Your task to perform on an android device: Open calendar and show me the fourth week of next month Image 0: 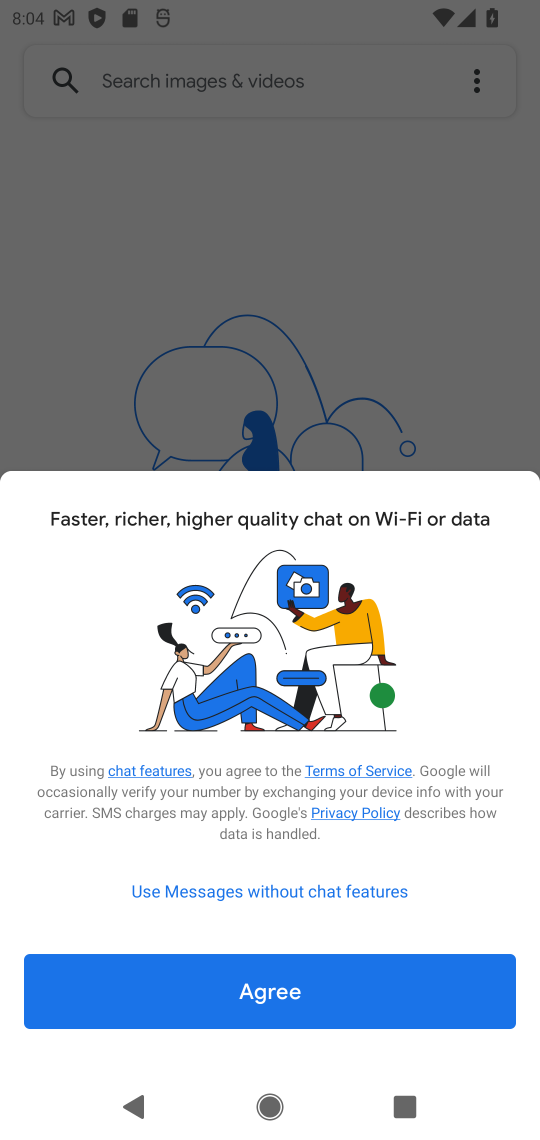
Step 0: press home button
Your task to perform on an android device: Open calendar and show me the fourth week of next month Image 1: 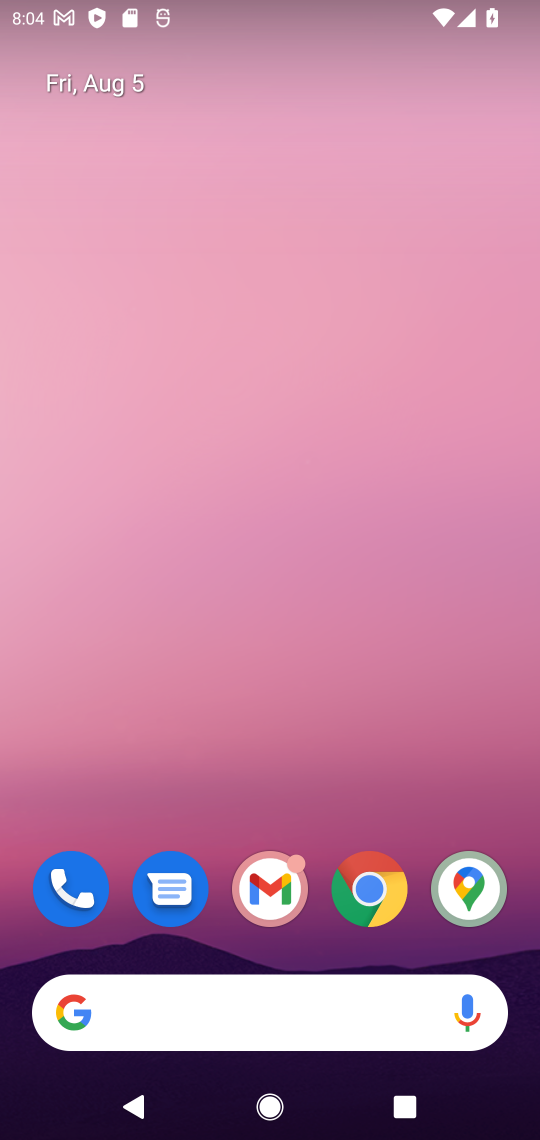
Step 1: drag from (218, 949) to (240, 193)
Your task to perform on an android device: Open calendar and show me the fourth week of next month Image 2: 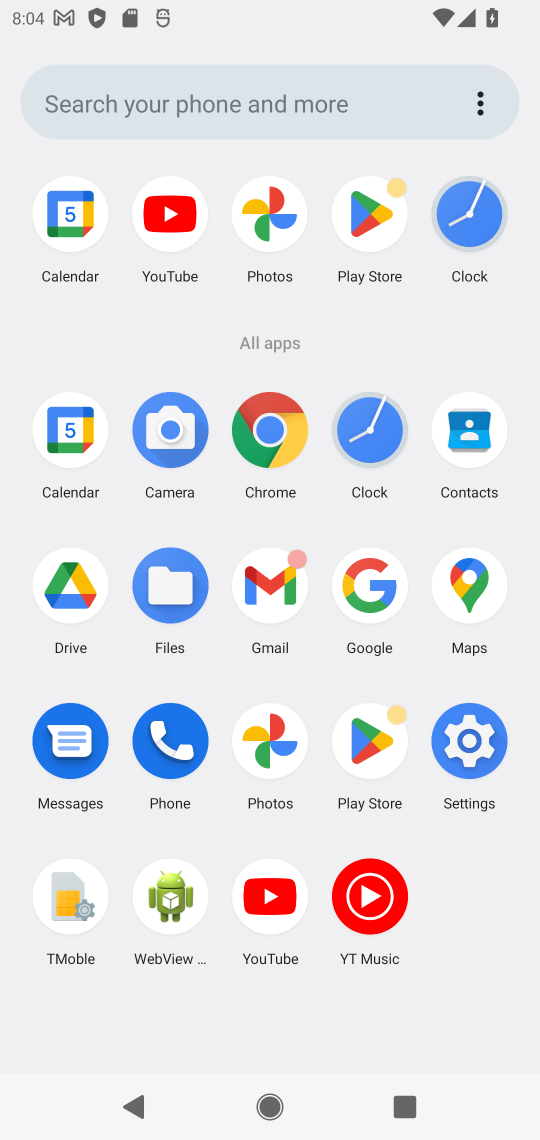
Step 2: click (67, 415)
Your task to perform on an android device: Open calendar and show me the fourth week of next month Image 3: 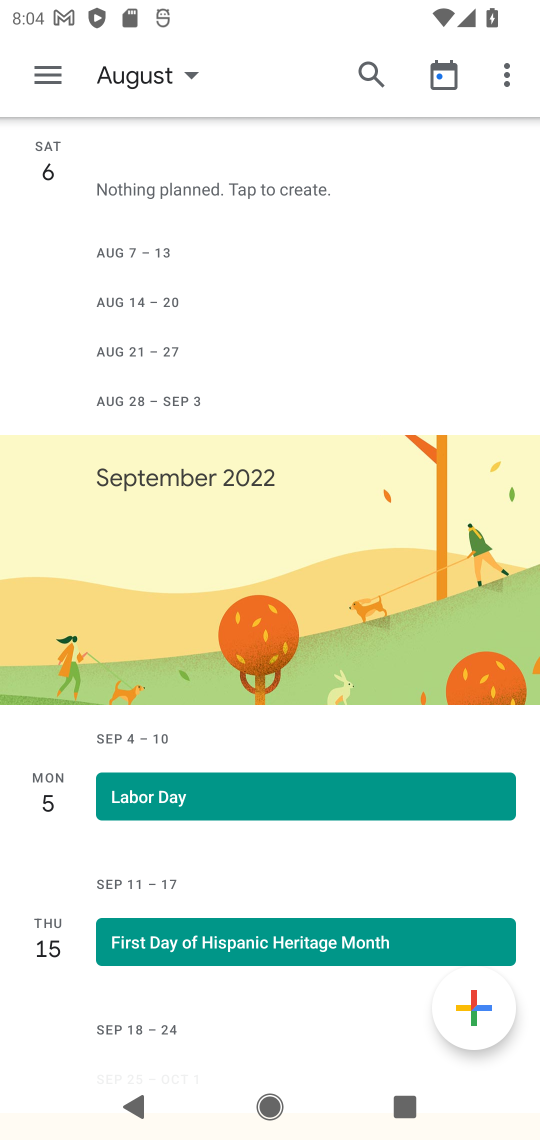
Step 3: click (63, 59)
Your task to perform on an android device: Open calendar and show me the fourth week of next month Image 4: 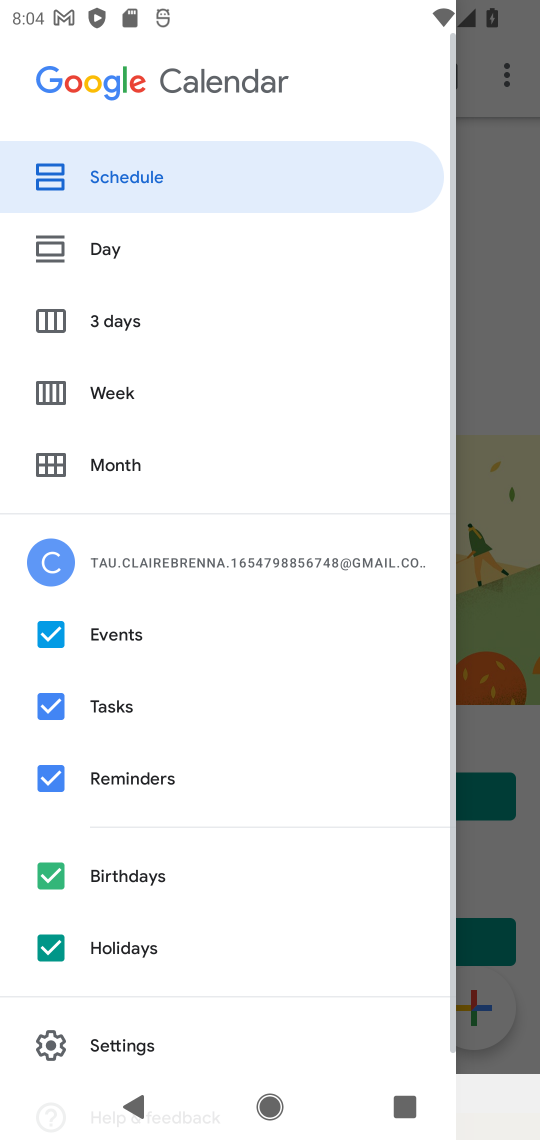
Step 4: click (138, 399)
Your task to perform on an android device: Open calendar and show me the fourth week of next month Image 5: 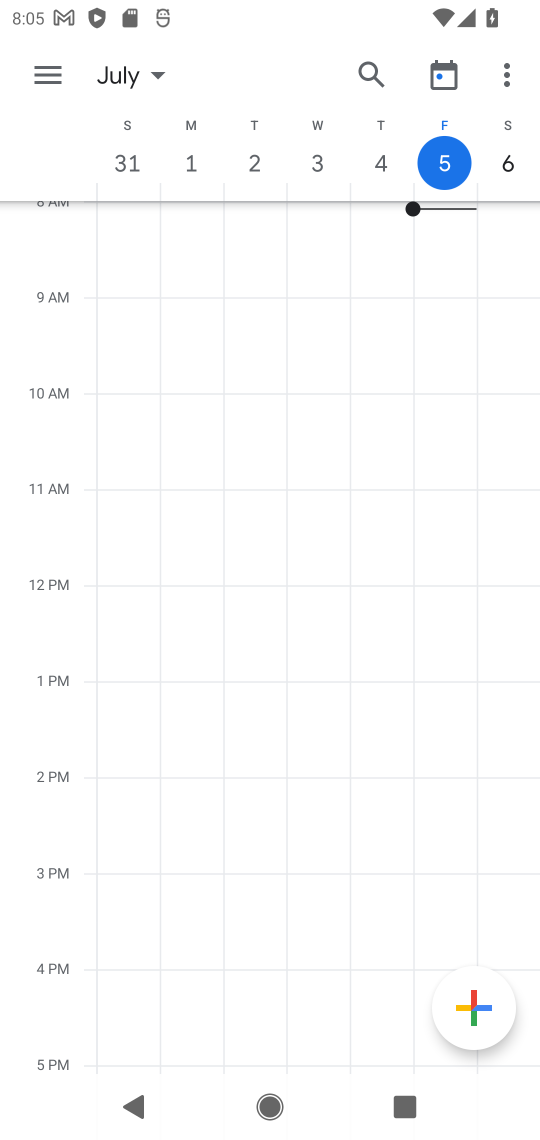
Step 5: drag from (481, 153) to (0, 172)
Your task to perform on an android device: Open calendar and show me the fourth week of next month Image 6: 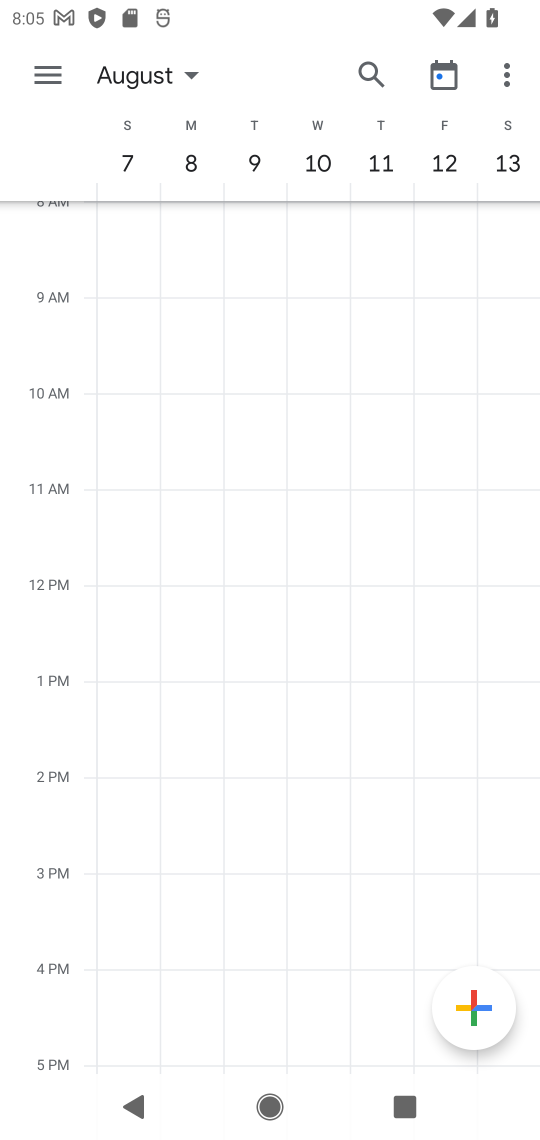
Step 6: drag from (503, 134) to (0, 183)
Your task to perform on an android device: Open calendar and show me the fourth week of next month Image 7: 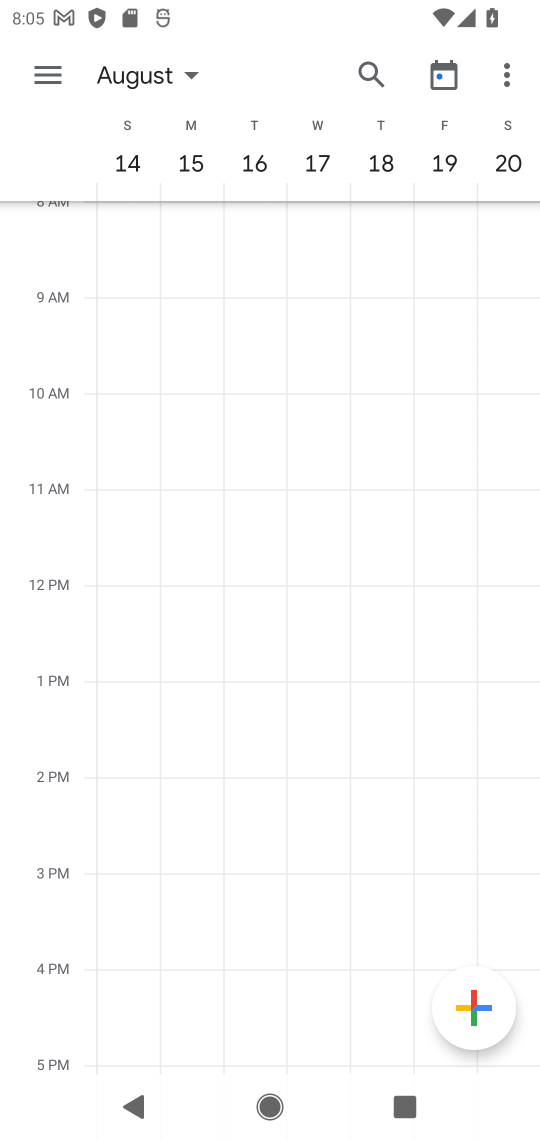
Step 7: drag from (448, 152) to (17, 213)
Your task to perform on an android device: Open calendar and show me the fourth week of next month Image 8: 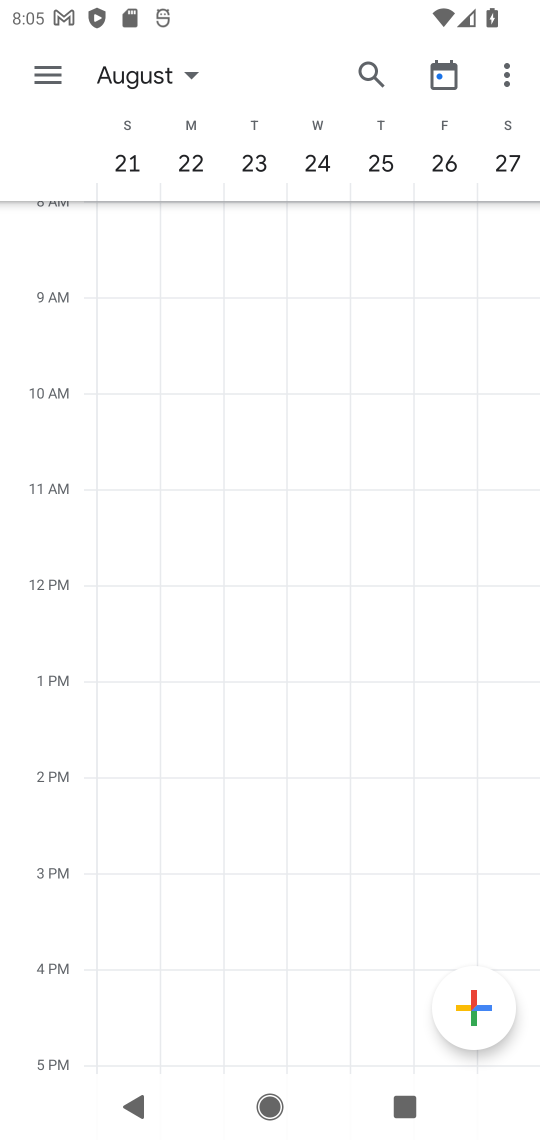
Step 8: drag from (514, 159) to (102, 161)
Your task to perform on an android device: Open calendar and show me the fourth week of next month Image 9: 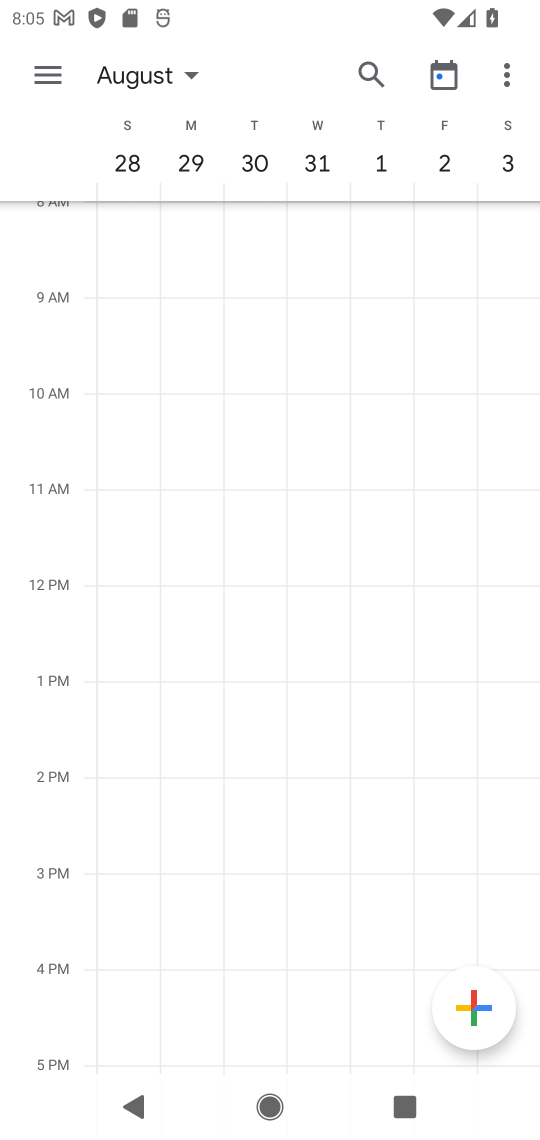
Step 9: drag from (438, 169) to (56, 231)
Your task to perform on an android device: Open calendar and show me the fourth week of next month Image 10: 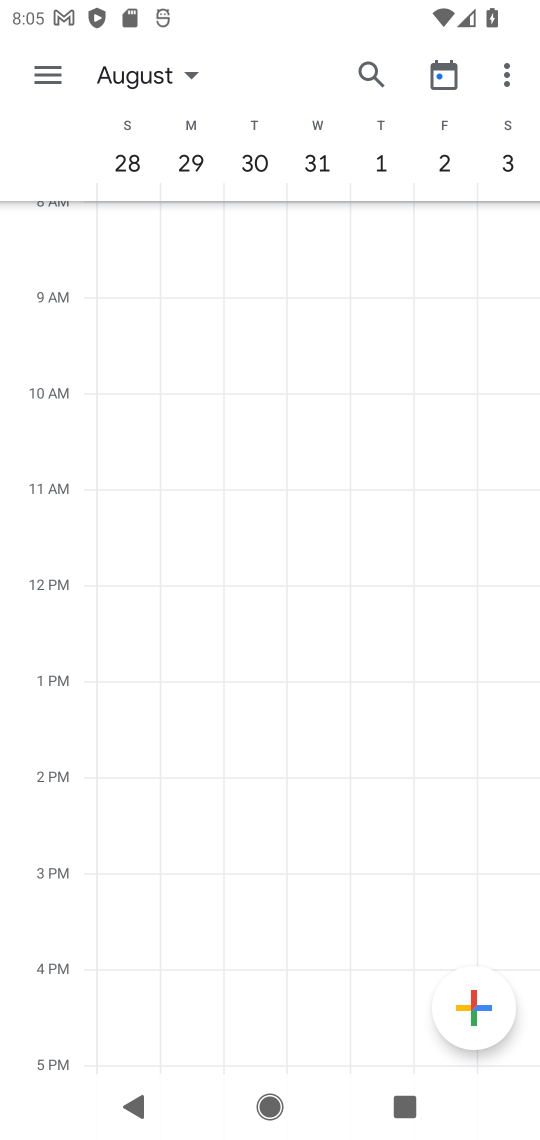
Step 10: drag from (447, 144) to (4, 175)
Your task to perform on an android device: Open calendar and show me the fourth week of next month Image 11: 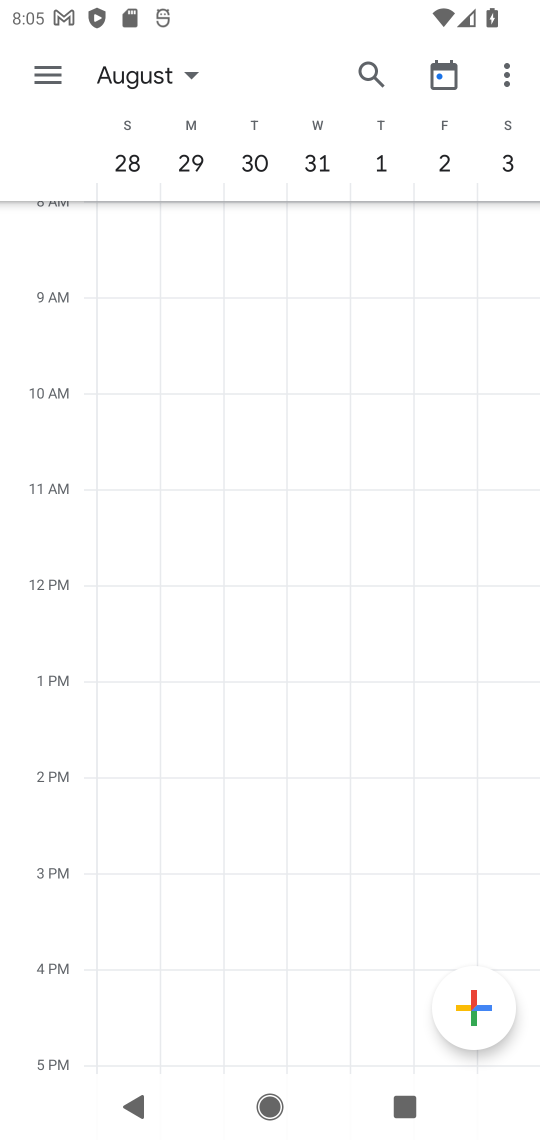
Step 11: drag from (473, 145) to (58, 177)
Your task to perform on an android device: Open calendar and show me the fourth week of next month Image 12: 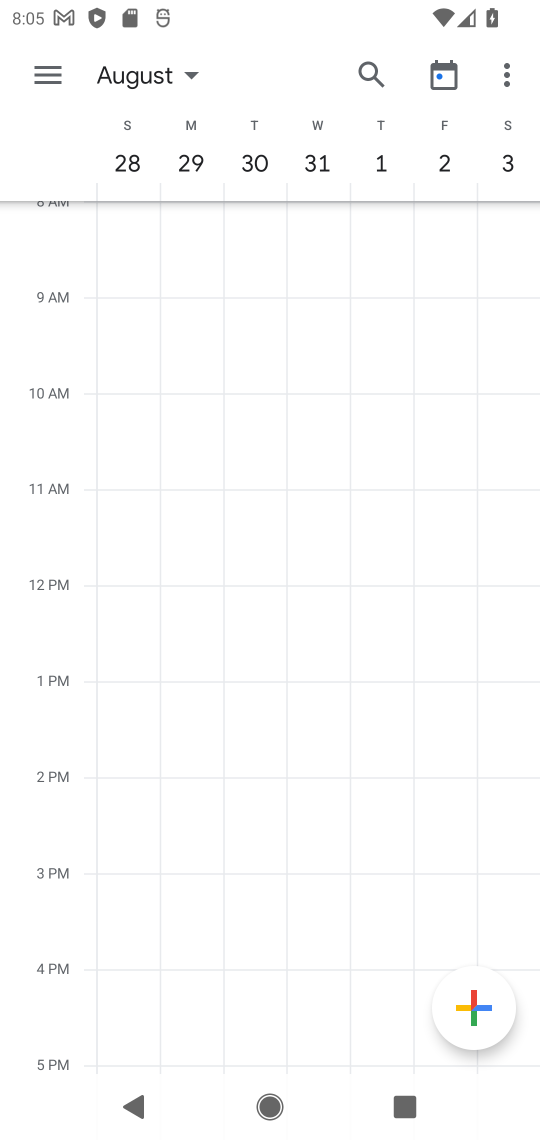
Step 12: drag from (430, 148) to (88, 163)
Your task to perform on an android device: Open calendar and show me the fourth week of next month Image 13: 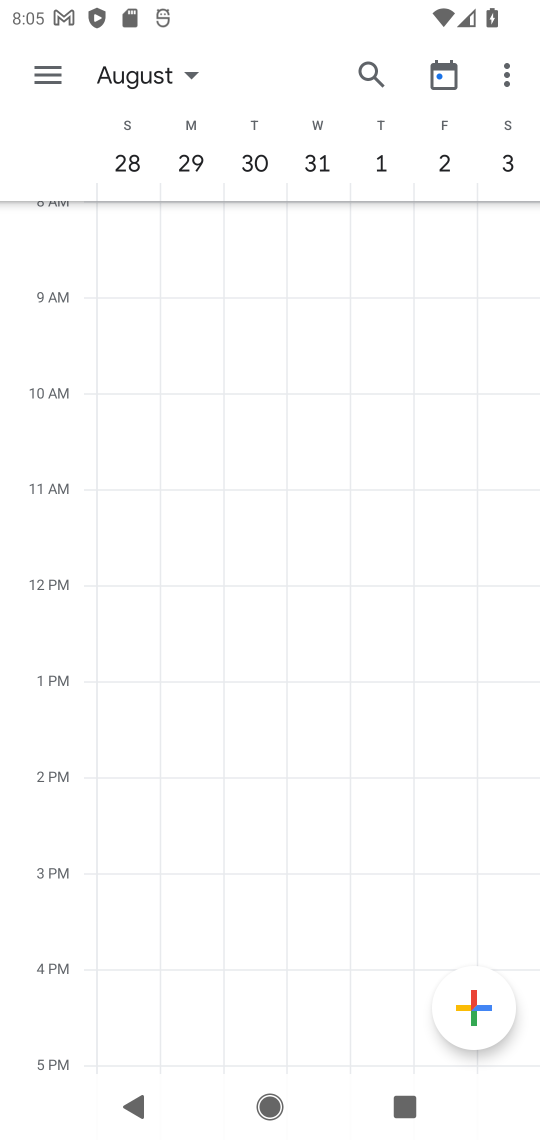
Step 13: drag from (291, 175) to (145, 175)
Your task to perform on an android device: Open calendar and show me the fourth week of next month Image 14: 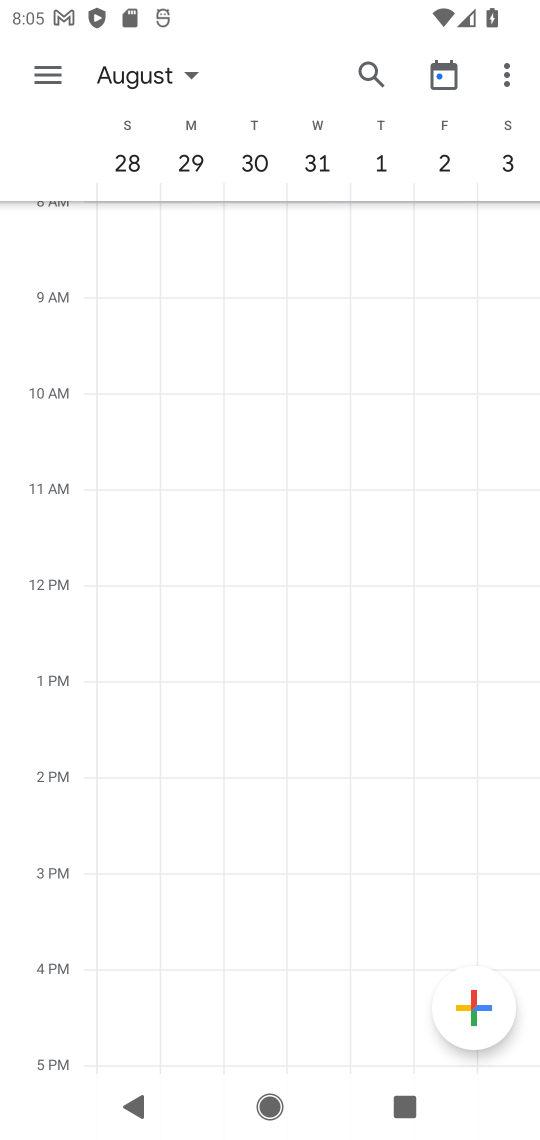
Step 14: drag from (418, 146) to (74, 174)
Your task to perform on an android device: Open calendar and show me the fourth week of next month Image 15: 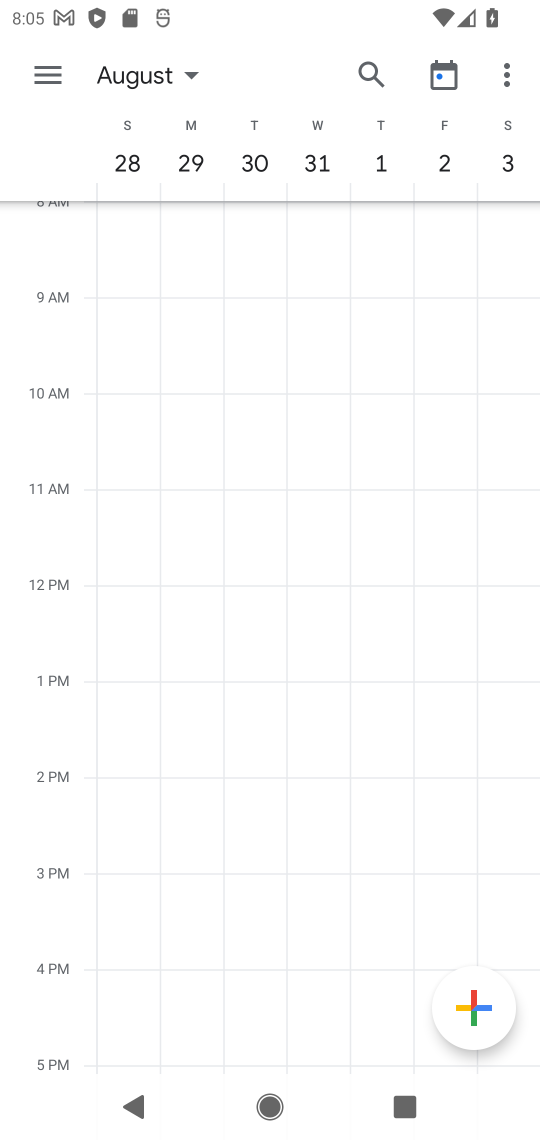
Step 15: click (52, 58)
Your task to perform on an android device: Open calendar and show me the fourth week of next month Image 16: 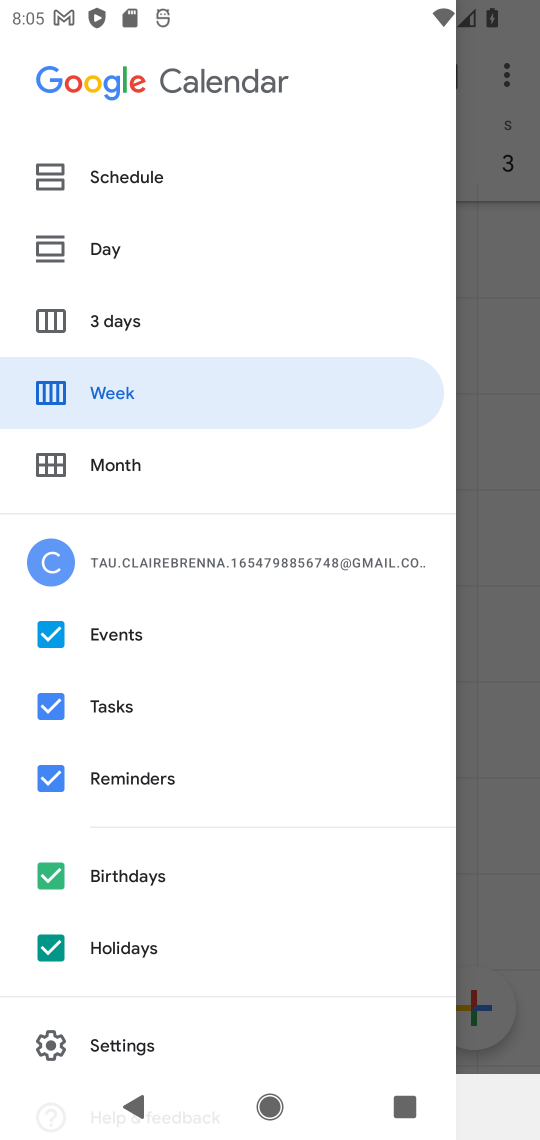
Step 16: click (513, 490)
Your task to perform on an android device: Open calendar and show me the fourth week of next month Image 17: 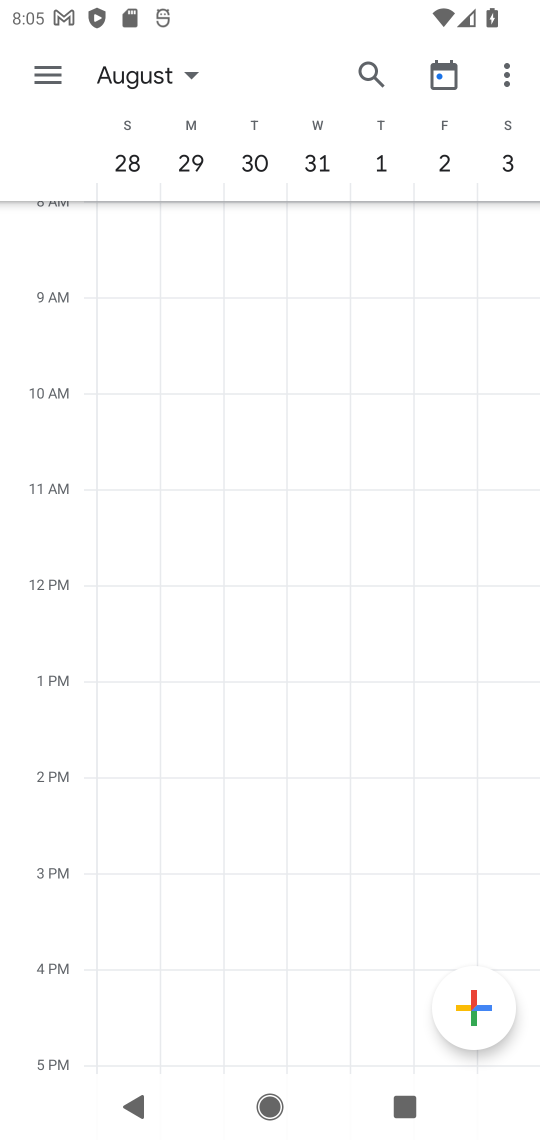
Step 17: task complete